Your task to perform on an android device: change keyboard looks Image 0: 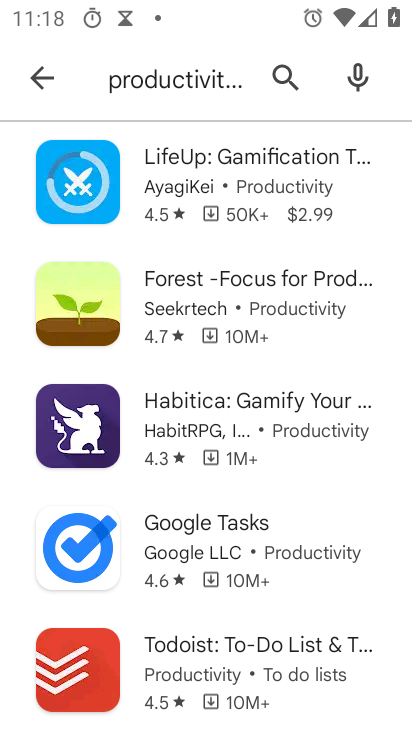
Step 0: click (40, 77)
Your task to perform on an android device: change keyboard looks Image 1: 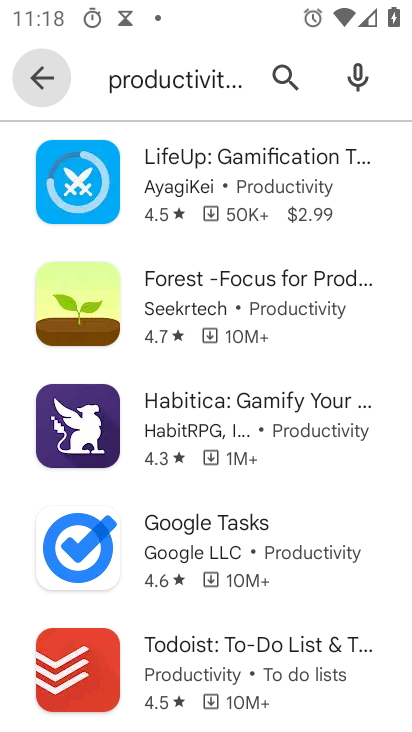
Step 1: click (40, 77)
Your task to perform on an android device: change keyboard looks Image 2: 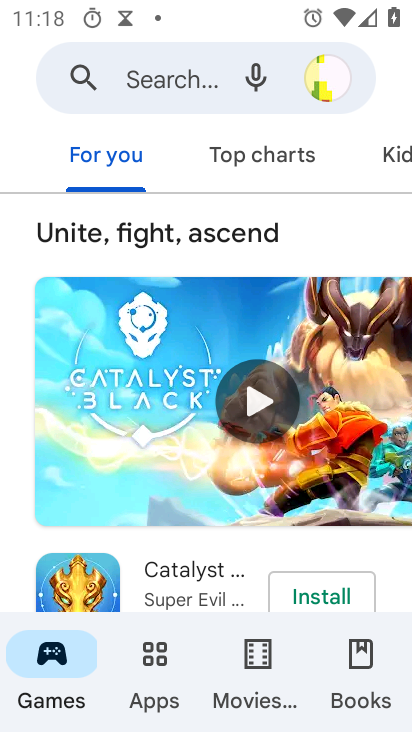
Step 2: click (42, 84)
Your task to perform on an android device: change keyboard looks Image 3: 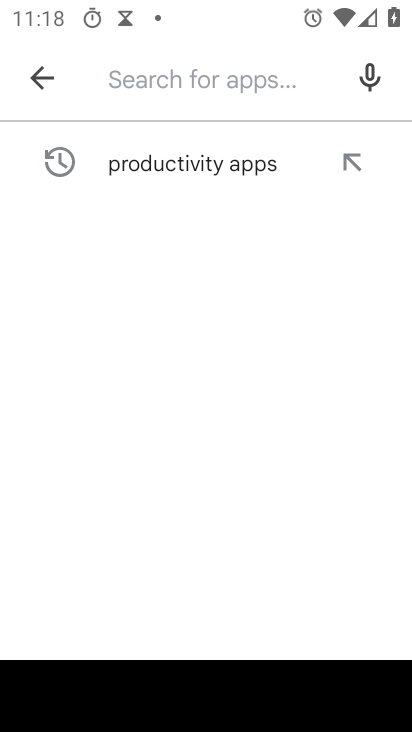
Step 3: press back button
Your task to perform on an android device: change keyboard looks Image 4: 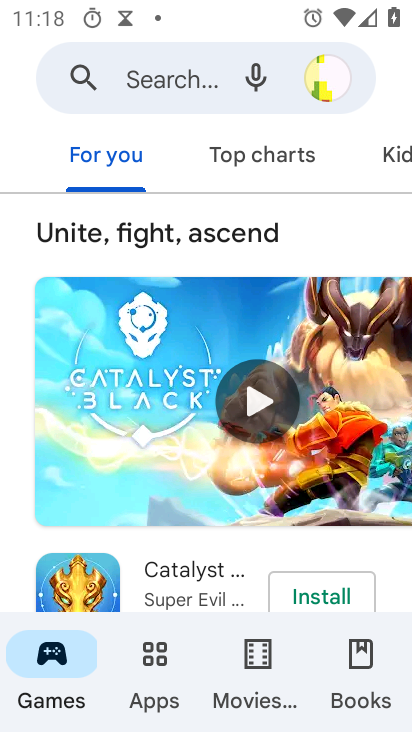
Step 4: press back button
Your task to perform on an android device: change keyboard looks Image 5: 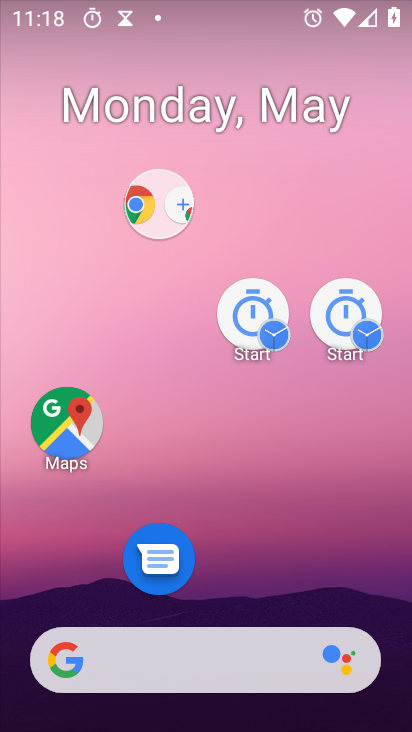
Step 5: click (40, 80)
Your task to perform on an android device: change keyboard looks Image 6: 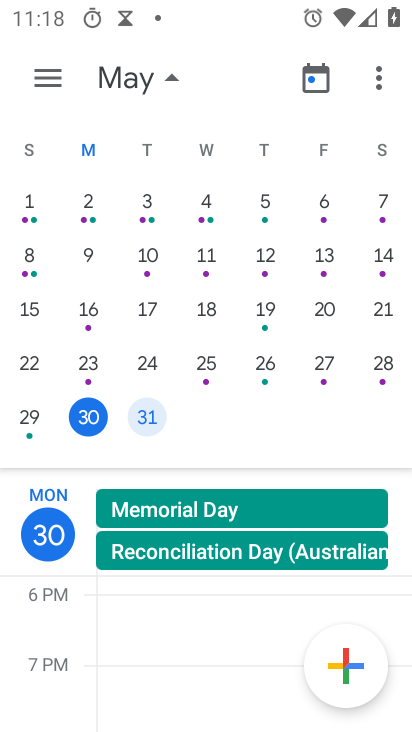
Step 6: press home button
Your task to perform on an android device: change keyboard looks Image 7: 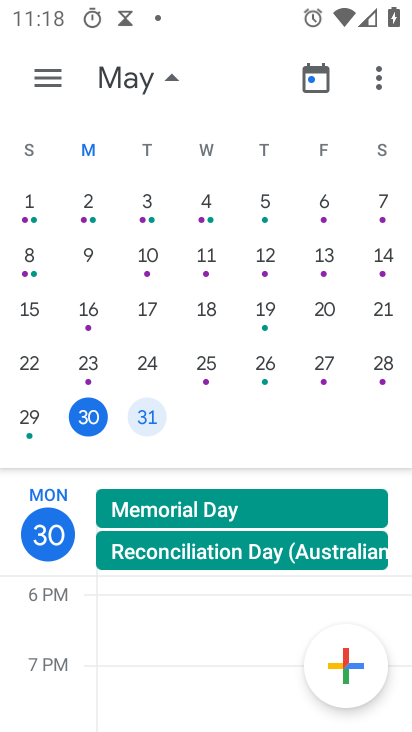
Step 7: drag from (266, 577) to (252, 110)
Your task to perform on an android device: change keyboard looks Image 8: 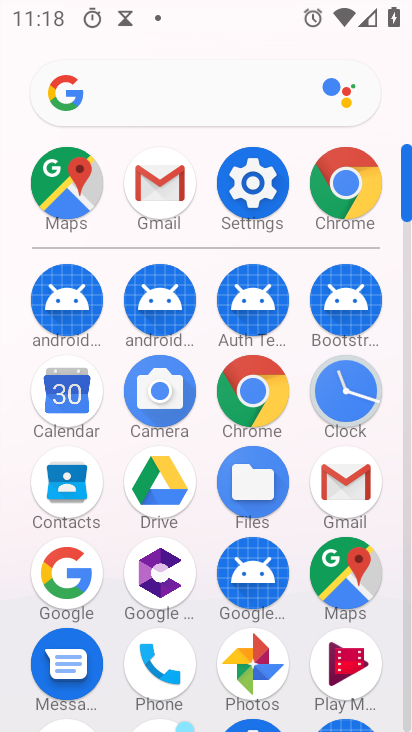
Step 8: drag from (289, 554) to (240, 132)
Your task to perform on an android device: change keyboard looks Image 9: 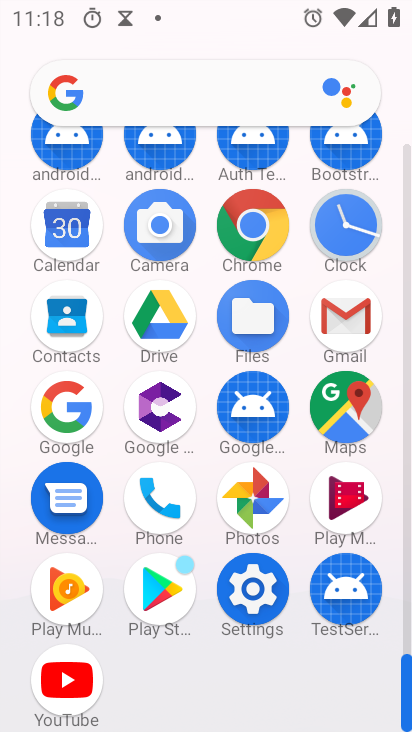
Step 9: drag from (296, 549) to (271, 149)
Your task to perform on an android device: change keyboard looks Image 10: 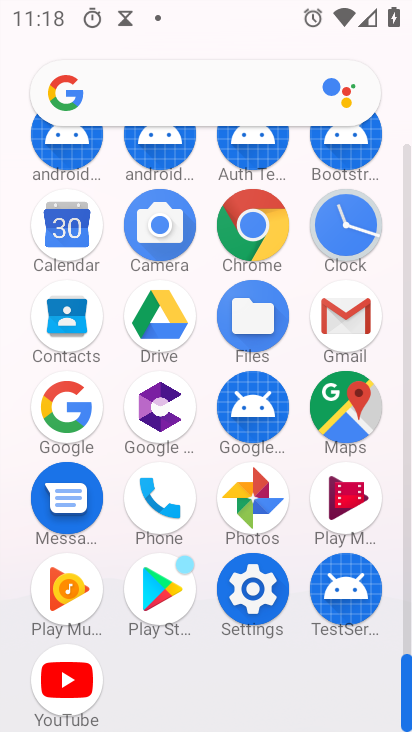
Step 10: drag from (256, 562) to (255, 609)
Your task to perform on an android device: change keyboard looks Image 11: 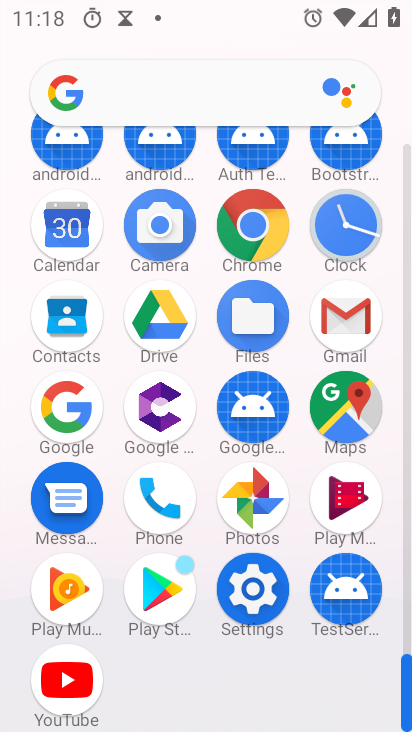
Step 11: click (244, 608)
Your task to perform on an android device: change keyboard looks Image 12: 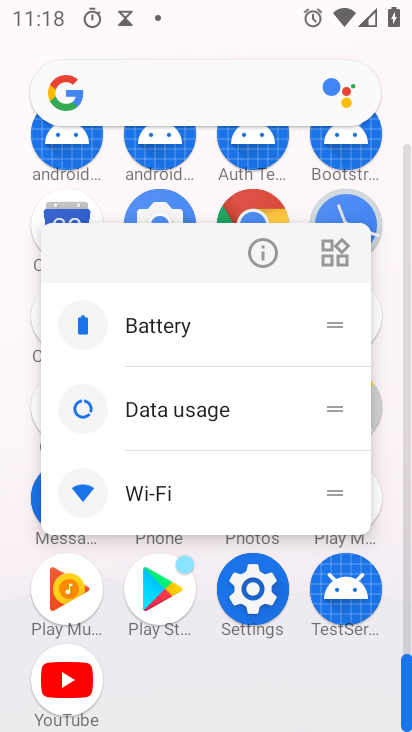
Step 12: click (248, 579)
Your task to perform on an android device: change keyboard looks Image 13: 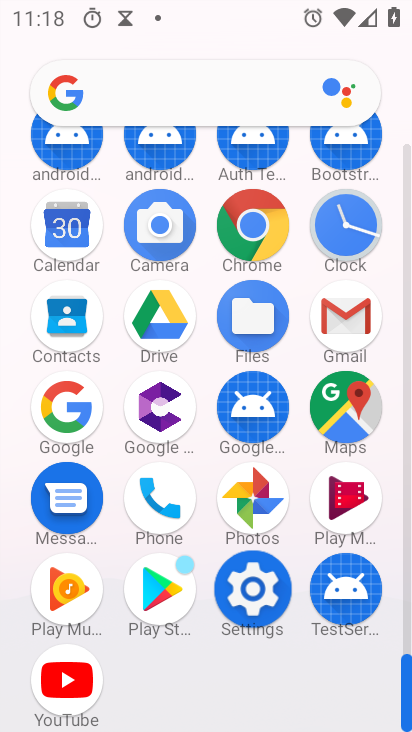
Step 13: click (247, 603)
Your task to perform on an android device: change keyboard looks Image 14: 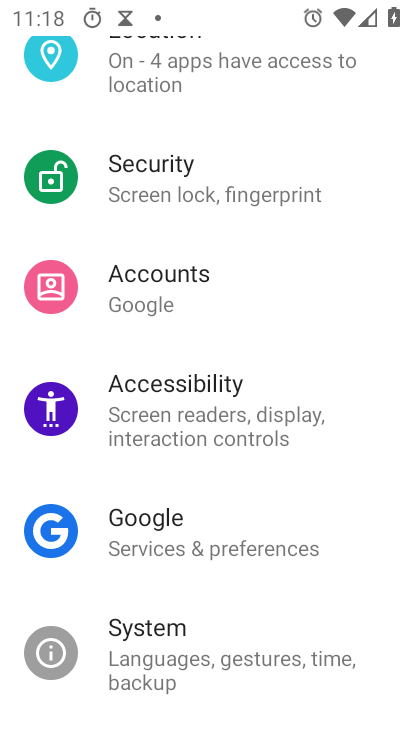
Step 14: click (248, 605)
Your task to perform on an android device: change keyboard looks Image 15: 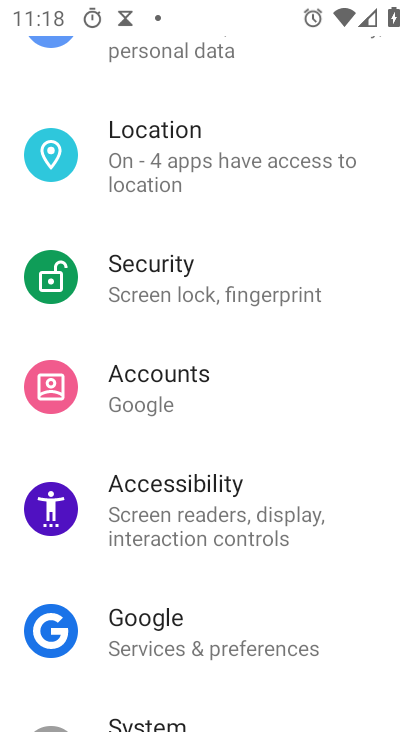
Step 15: click (248, 605)
Your task to perform on an android device: change keyboard looks Image 16: 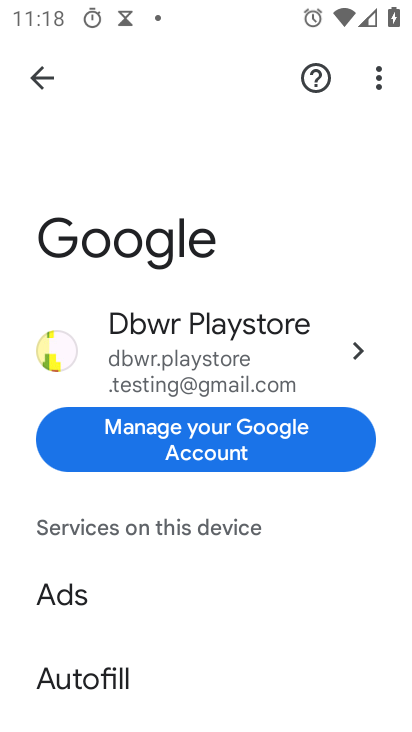
Step 16: press back button
Your task to perform on an android device: change keyboard looks Image 17: 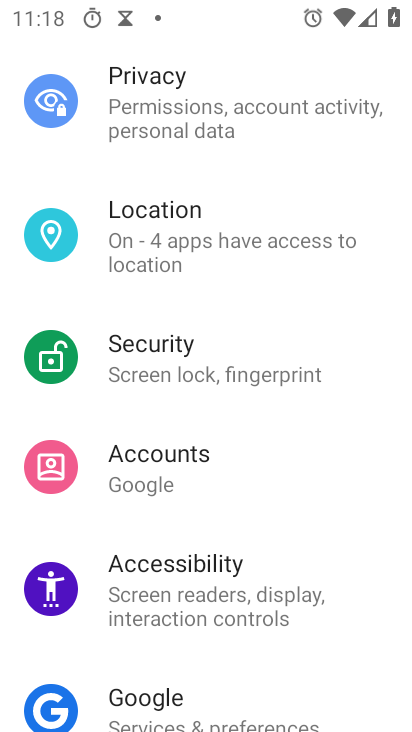
Step 17: drag from (172, 592) to (140, 215)
Your task to perform on an android device: change keyboard looks Image 18: 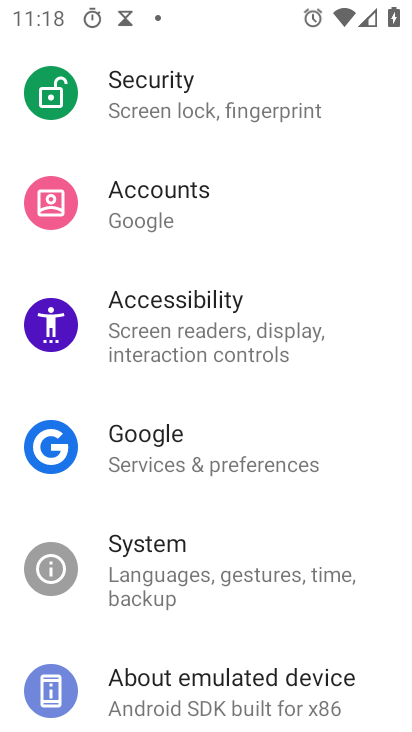
Step 18: drag from (201, 462) to (180, 107)
Your task to perform on an android device: change keyboard looks Image 19: 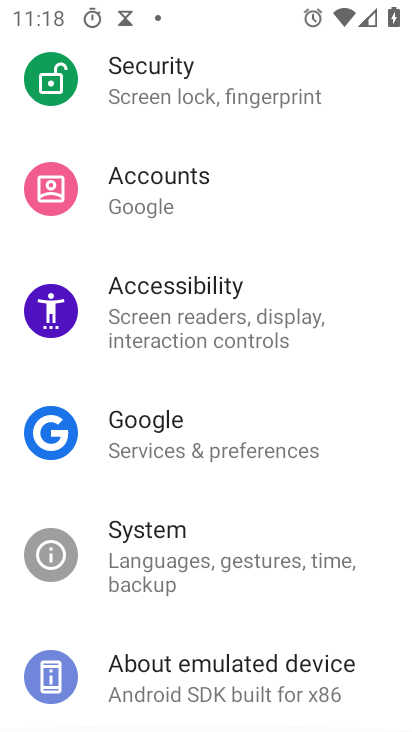
Step 19: drag from (225, 365) to (237, 16)
Your task to perform on an android device: change keyboard looks Image 20: 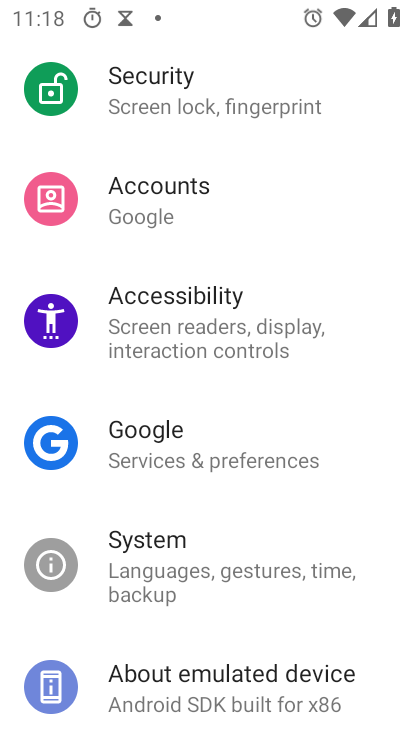
Step 20: click (154, 562)
Your task to perform on an android device: change keyboard looks Image 21: 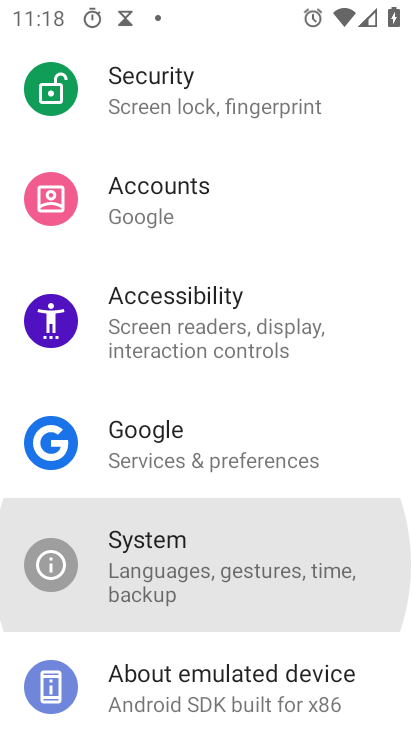
Step 21: click (154, 561)
Your task to perform on an android device: change keyboard looks Image 22: 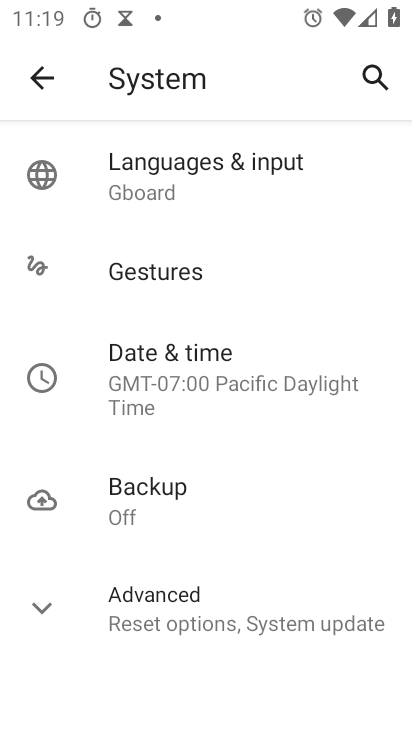
Step 22: click (160, 176)
Your task to perform on an android device: change keyboard looks Image 23: 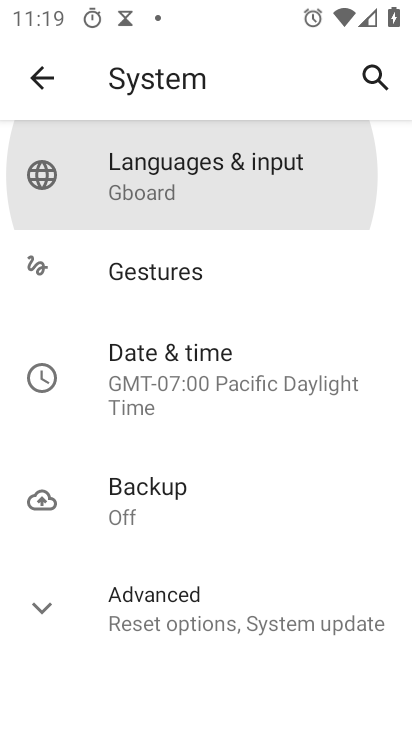
Step 23: click (160, 176)
Your task to perform on an android device: change keyboard looks Image 24: 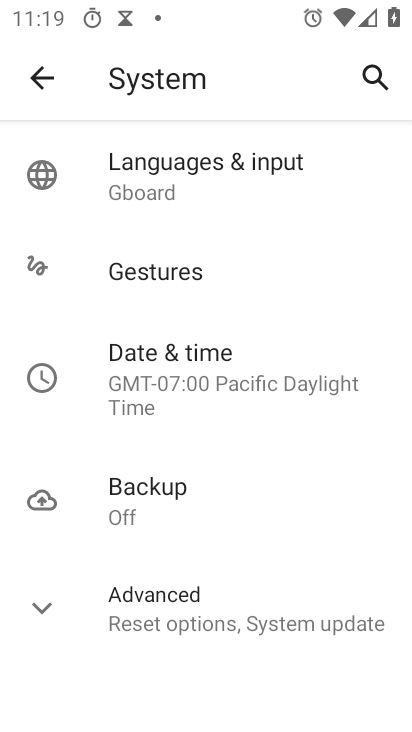
Step 24: click (160, 177)
Your task to perform on an android device: change keyboard looks Image 25: 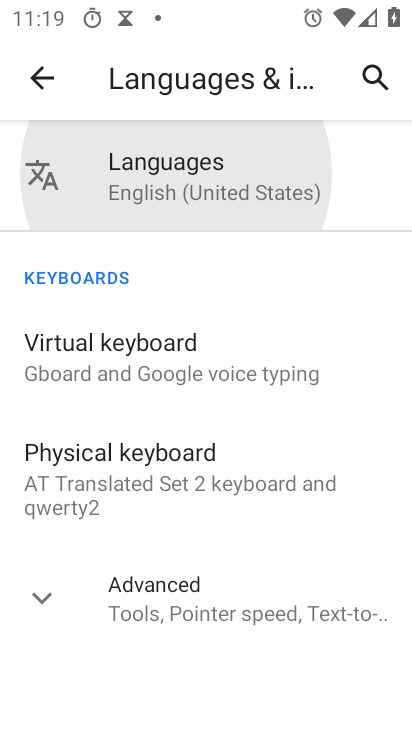
Step 25: click (162, 179)
Your task to perform on an android device: change keyboard looks Image 26: 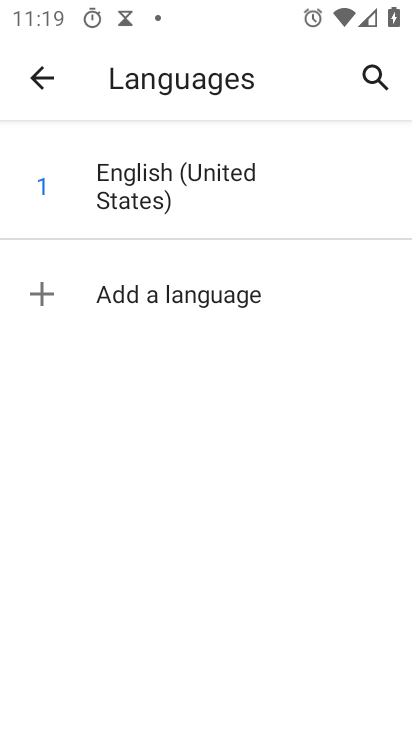
Step 26: click (37, 66)
Your task to perform on an android device: change keyboard looks Image 27: 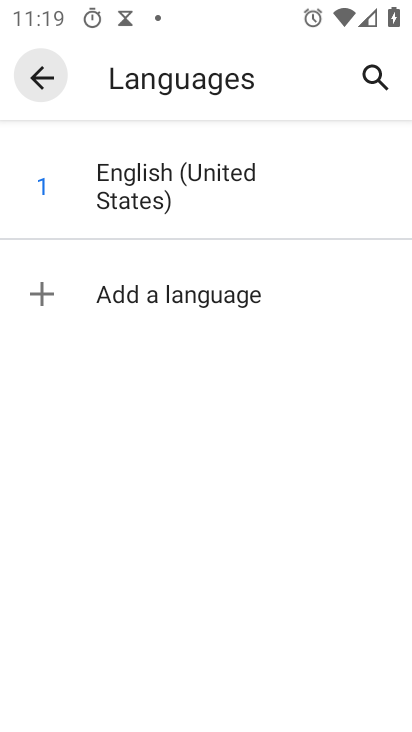
Step 27: click (41, 79)
Your task to perform on an android device: change keyboard looks Image 28: 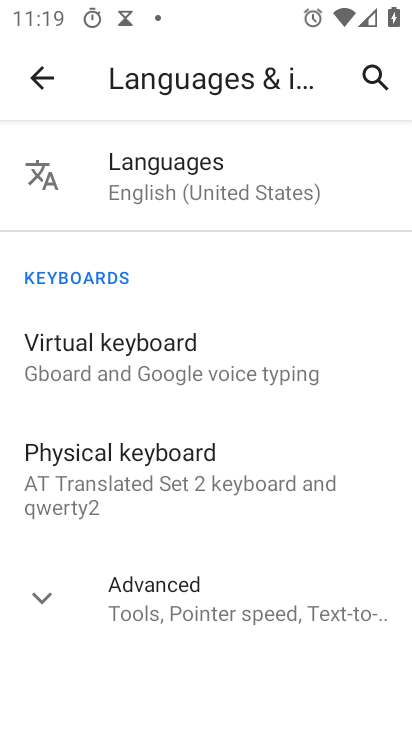
Step 28: click (105, 357)
Your task to perform on an android device: change keyboard looks Image 29: 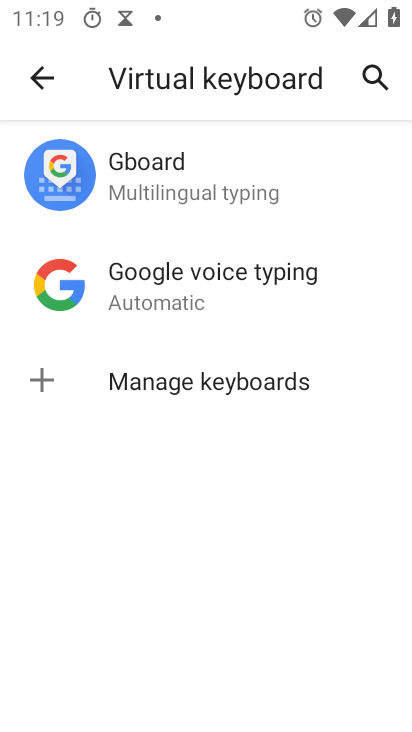
Step 29: click (162, 193)
Your task to perform on an android device: change keyboard looks Image 30: 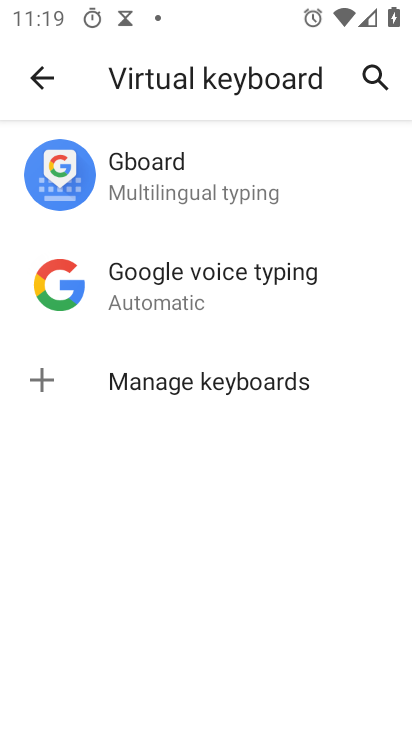
Step 30: click (162, 198)
Your task to perform on an android device: change keyboard looks Image 31: 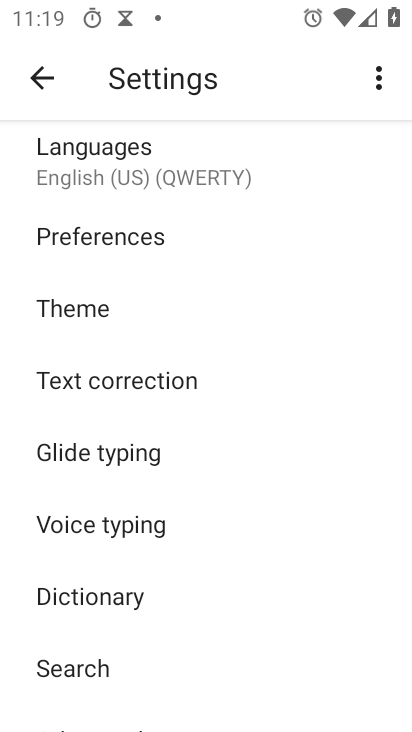
Step 31: click (62, 296)
Your task to perform on an android device: change keyboard looks Image 32: 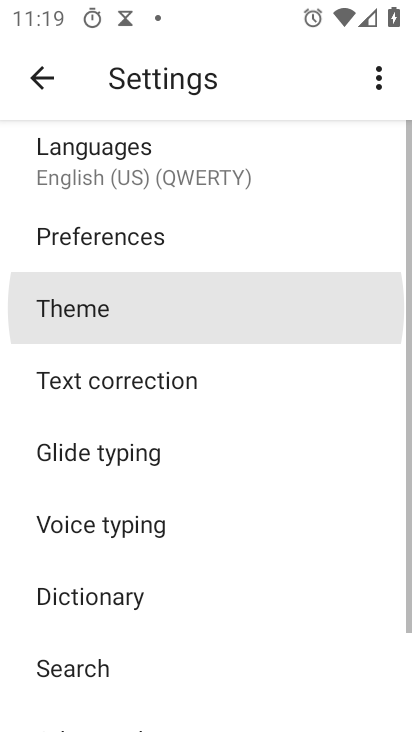
Step 32: click (71, 307)
Your task to perform on an android device: change keyboard looks Image 33: 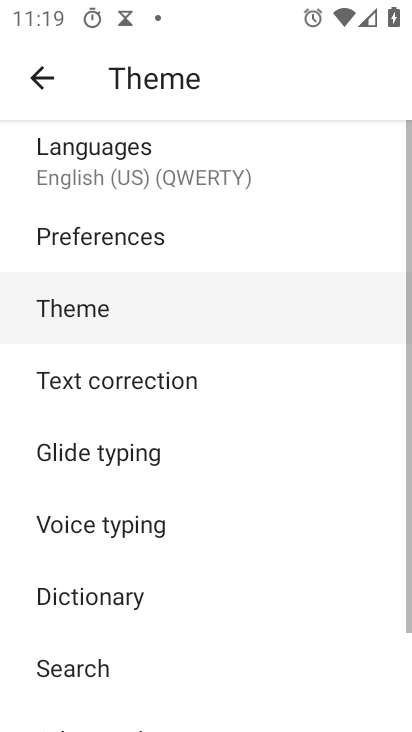
Step 33: click (74, 311)
Your task to perform on an android device: change keyboard looks Image 34: 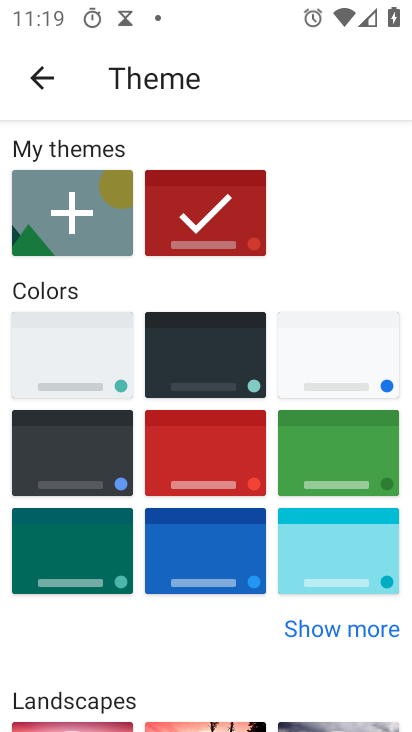
Step 34: click (72, 311)
Your task to perform on an android device: change keyboard looks Image 35: 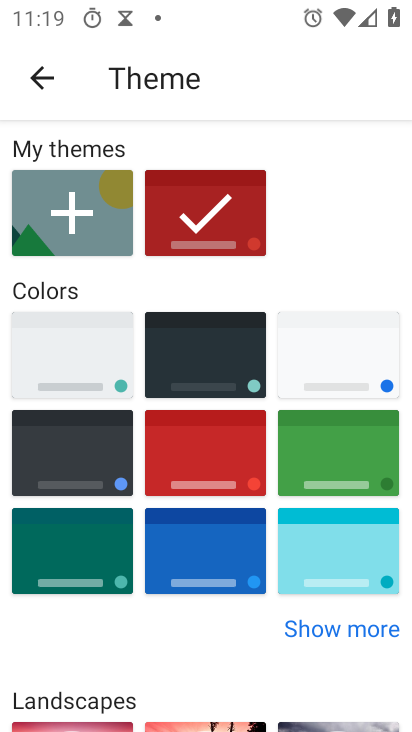
Step 35: click (71, 312)
Your task to perform on an android device: change keyboard looks Image 36: 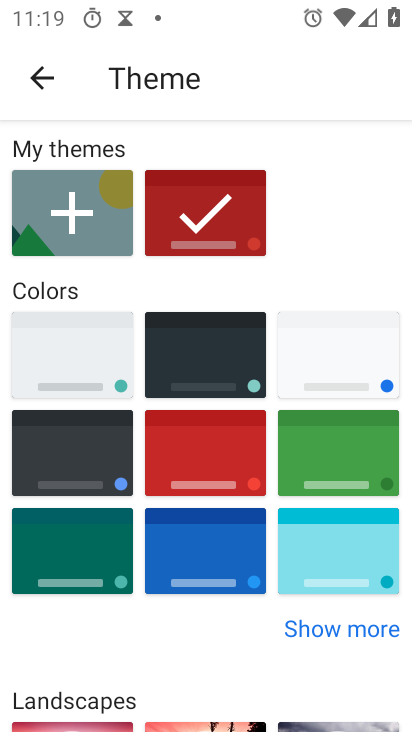
Step 36: click (209, 481)
Your task to perform on an android device: change keyboard looks Image 37: 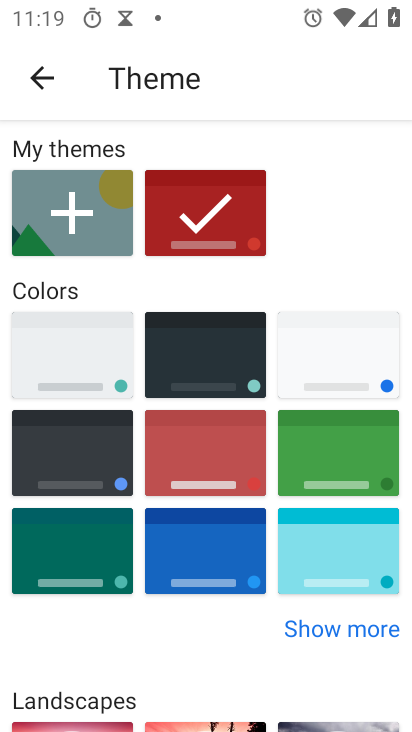
Step 37: click (212, 472)
Your task to perform on an android device: change keyboard looks Image 38: 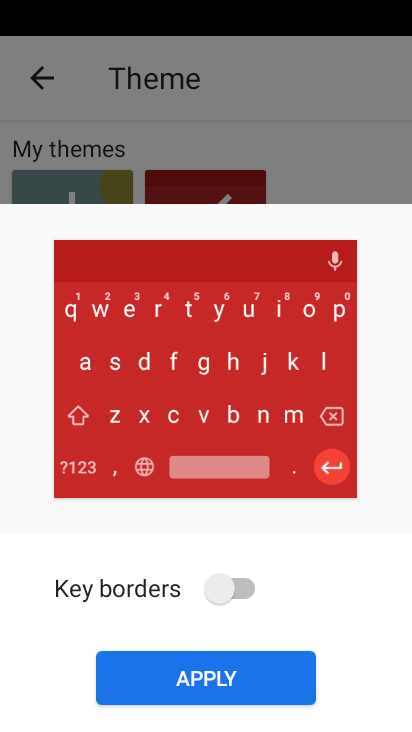
Step 38: click (212, 470)
Your task to perform on an android device: change keyboard looks Image 39: 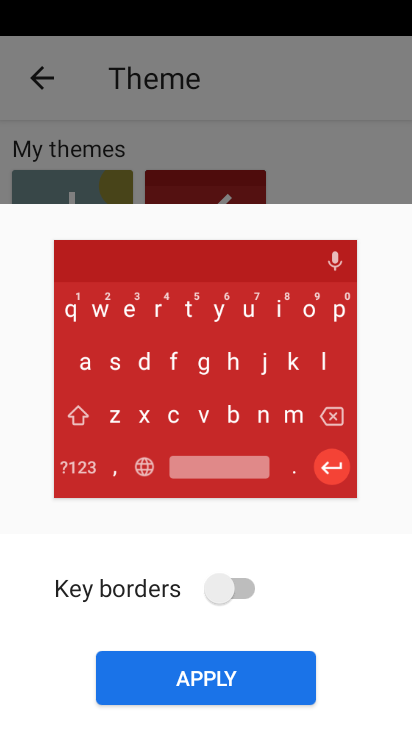
Step 39: click (210, 675)
Your task to perform on an android device: change keyboard looks Image 40: 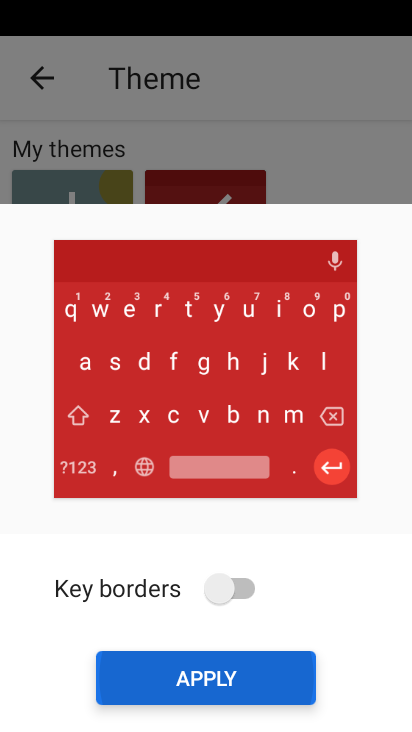
Step 40: click (212, 672)
Your task to perform on an android device: change keyboard looks Image 41: 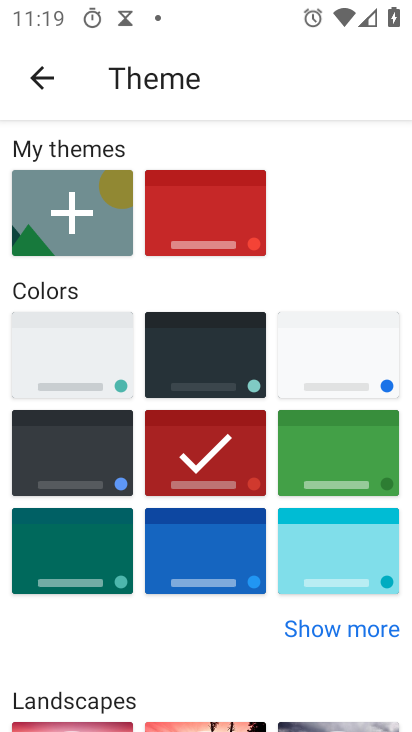
Step 41: click (213, 671)
Your task to perform on an android device: change keyboard looks Image 42: 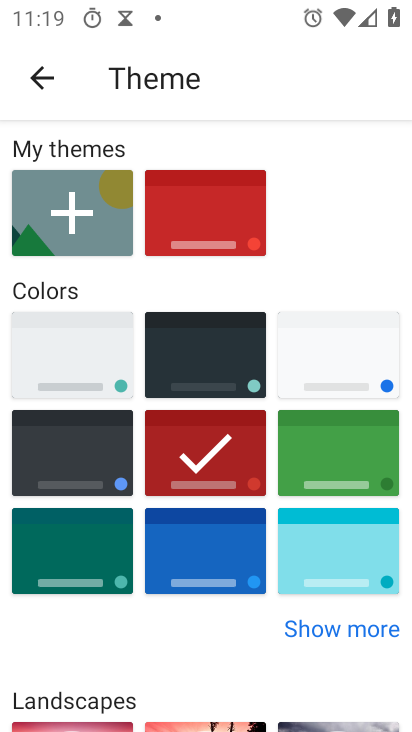
Step 42: task complete